Your task to perform on an android device: see tabs open on other devices in the chrome app Image 0: 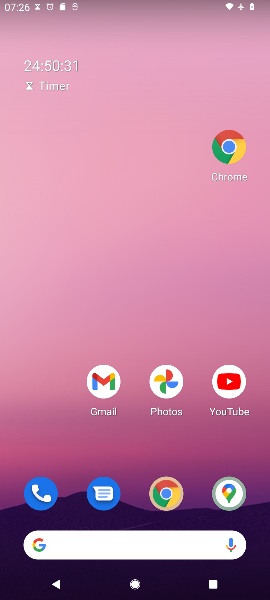
Step 0: press home button
Your task to perform on an android device: see tabs open on other devices in the chrome app Image 1: 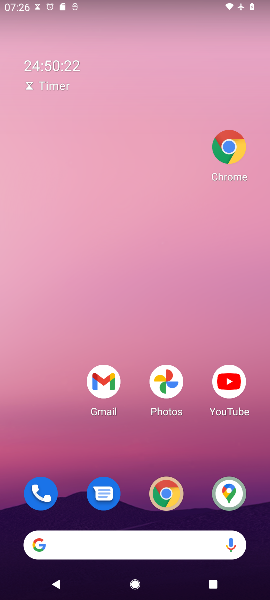
Step 1: click (169, 492)
Your task to perform on an android device: see tabs open on other devices in the chrome app Image 2: 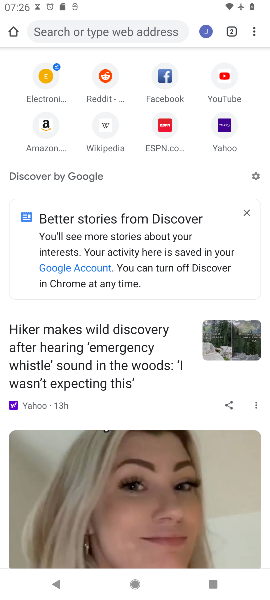
Step 2: task complete